Your task to perform on an android device: Go to Reddit.com Image 0: 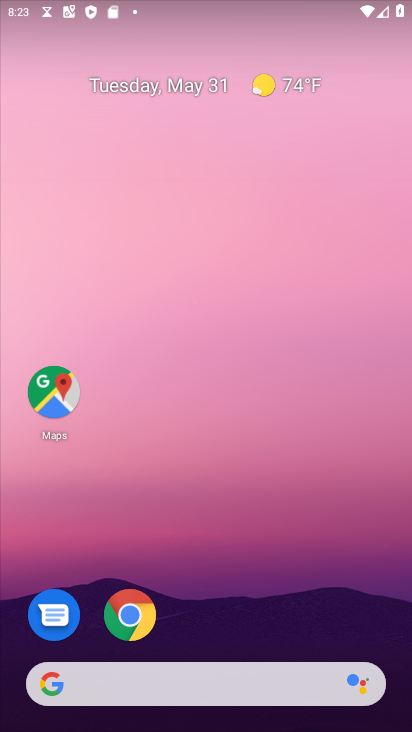
Step 0: press home button
Your task to perform on an android device: Go to Reddit.com Image 1: 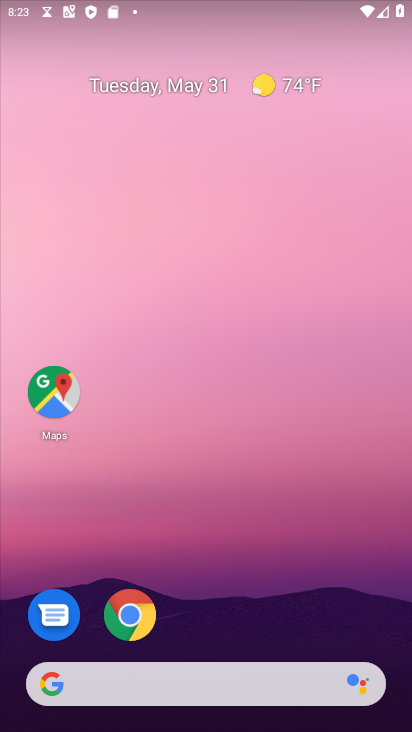
Step 1: click (135, 616)
Your task to perform on an android device: Go to Reddit.com Image 2: 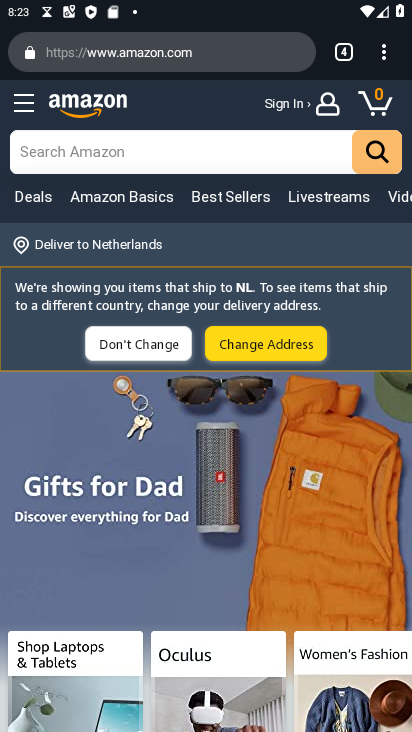
Step 2: drag from (383, 61) to (206, 96)
Your task to perform on an android device: Go to Reddit.com Image 3: 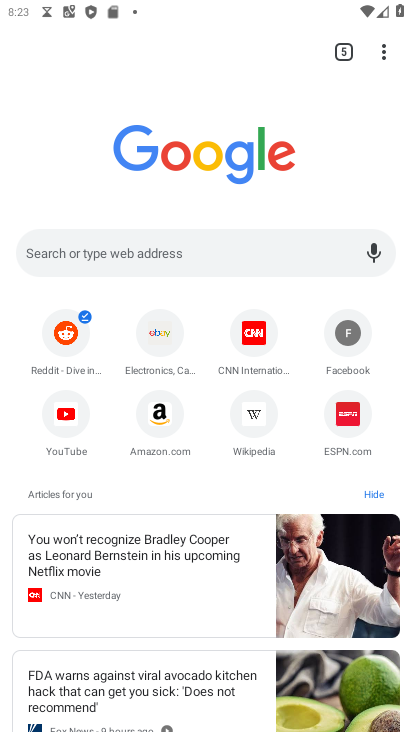
Step 3: click (69, 343)
Your task to perform on an android device: Go to Reddit.com Image 4: 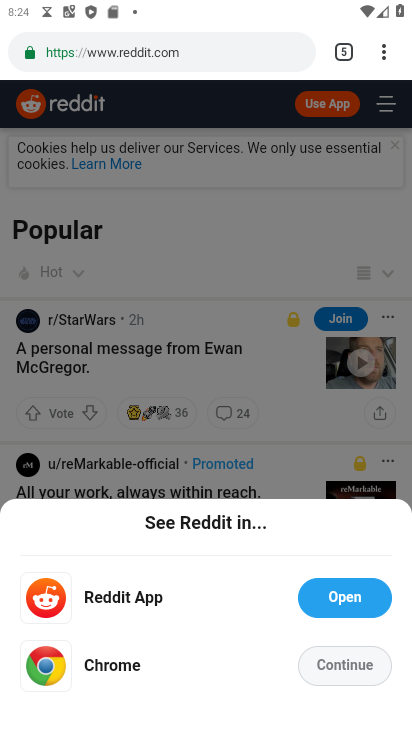
Step 4: task complete